Your task to perform on an android device: Open the stopwatch Image 0: 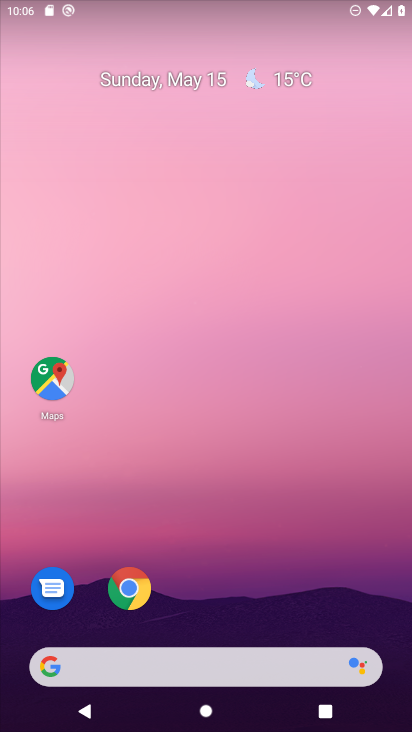
Step 0: drag from (239, 511) to (270, 1)
Your task to perform on an android device: Open the stopwatch Image 1: 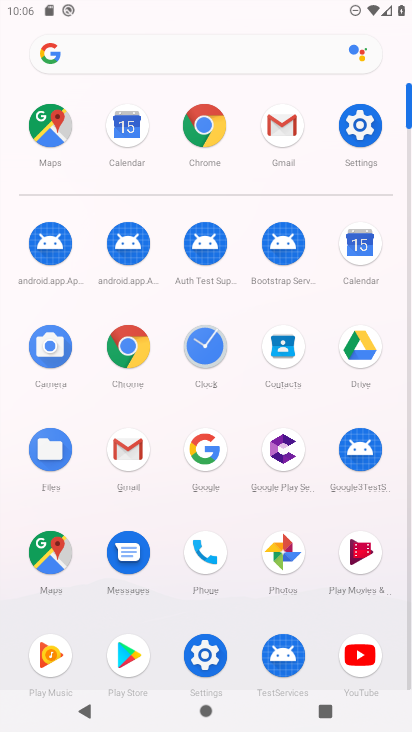
Step 1: click (356, 130)
Your task to perform on an android device: Open the stopwatch Image 2: 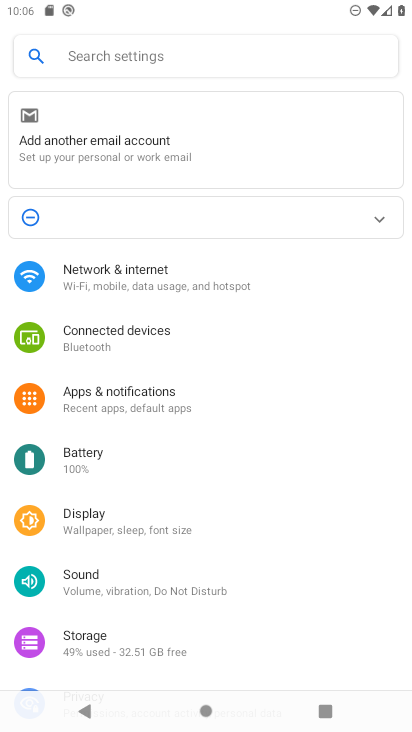
Step 2: press home button
Your task to perform on an android device: Open the stopwatch Image 3: 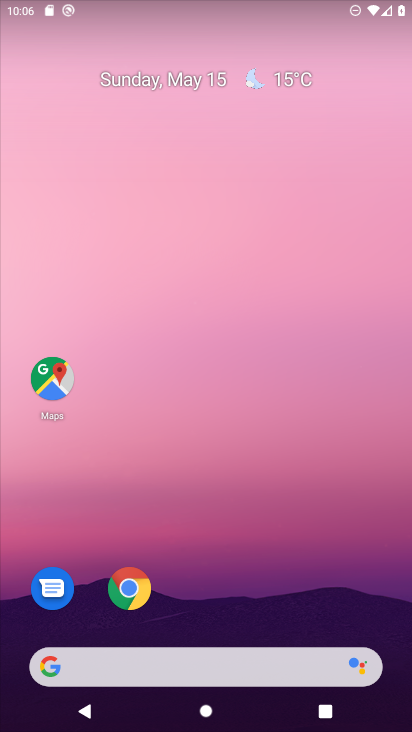
Step 3: drag from (221, 603) to (323, 57)
Your task to perform on an android device: Open the stopwatch Image 4: 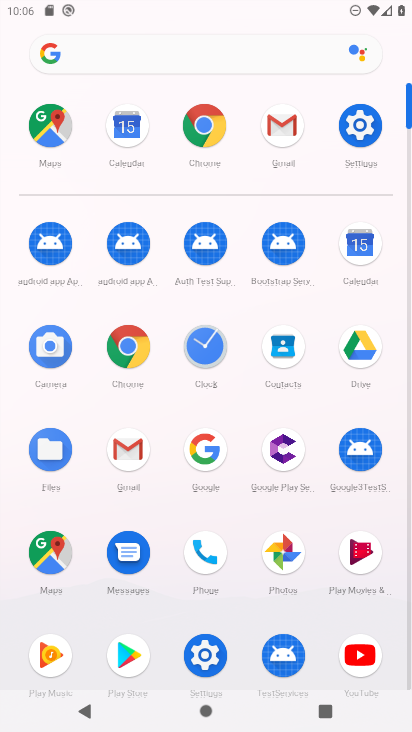
Step 4: click (210, 355)
Your task to perform on an android device: Open the stopwatch Image 5: 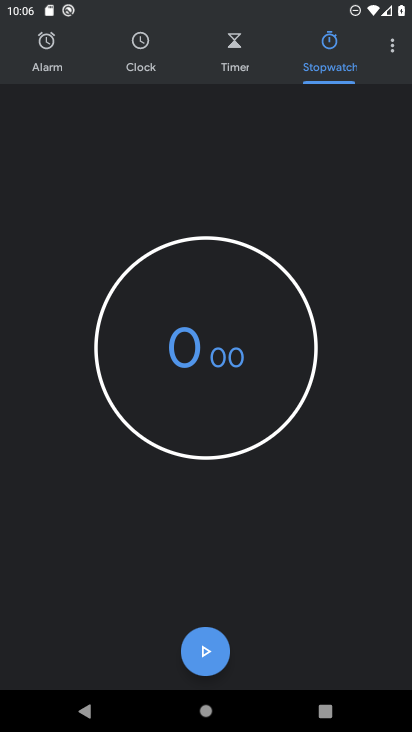
Step 5: task complete